Your task to perform on an android device: Open Google Maps Image 0: 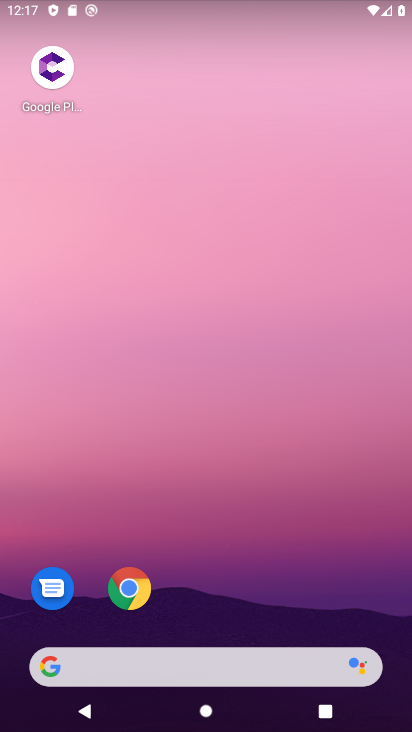
Step 0: drag from (243, 684) to (348, 90)
Your task to perform on an android device: Open Google Maps Image 1: 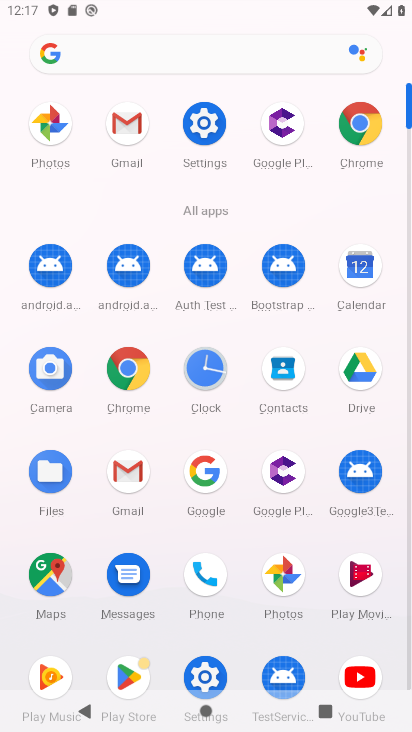
Step 1: click (51, 577)
Your task to perform on an android device: Open Google Maps Image 2: 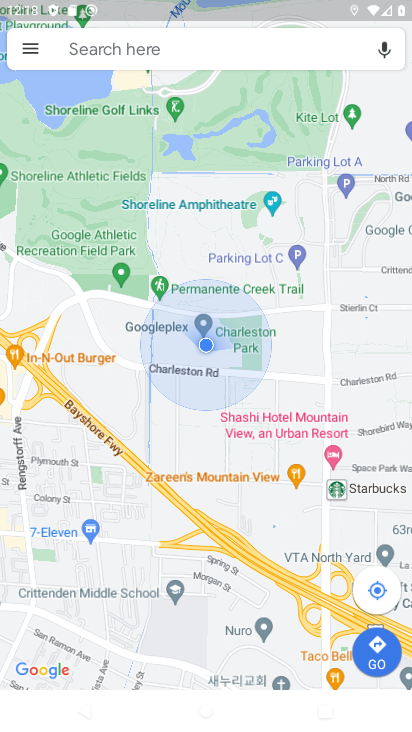
Step 2: task complete